Your task to perform on an android device: Go to sound settings Image 0: 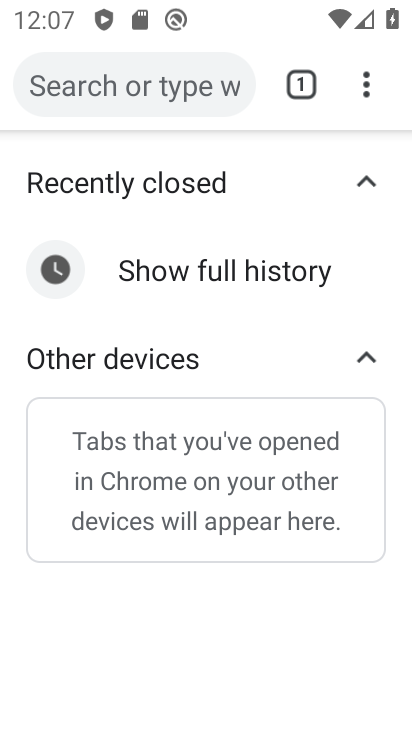
Step 0: task complete